Your task to perform on an android device: What's on my calendar tomorrow? Image 0: 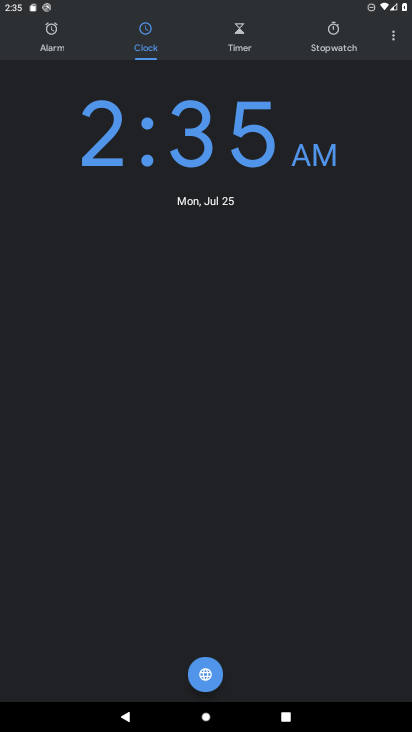
Step 0: press home button
Your task to perform on an android device: What's on my calendar tomorrow? Image 1: 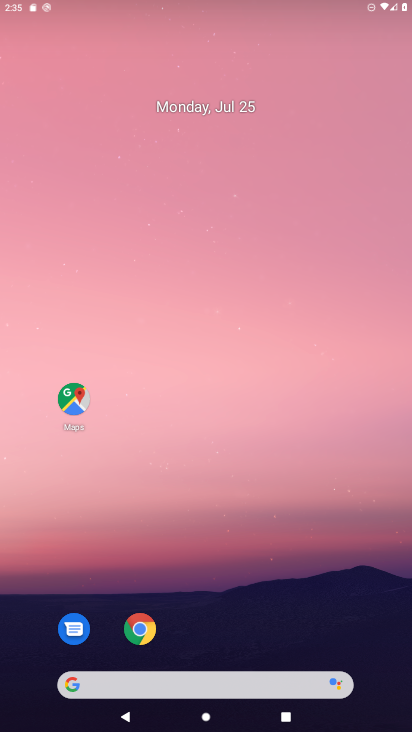
Step 1: drag from (271, 595) to (271, 1)
Your task to perform on an android device: What's on my calendar tomorrow? Image 2: 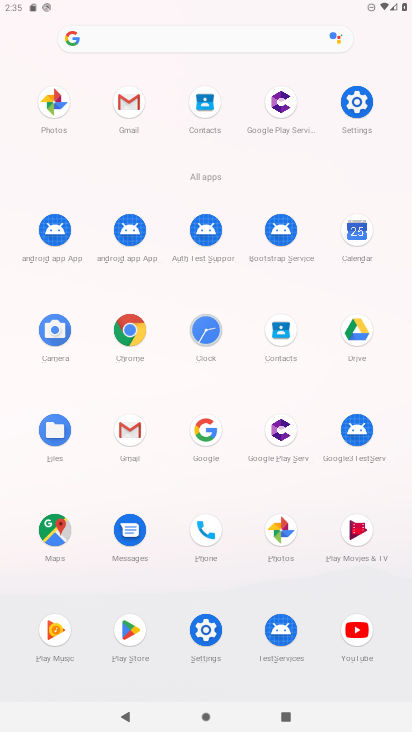
Step 2: click (349, 236)
Your task to perform on an android device: What's on my calendar tomorrow? Image 3: 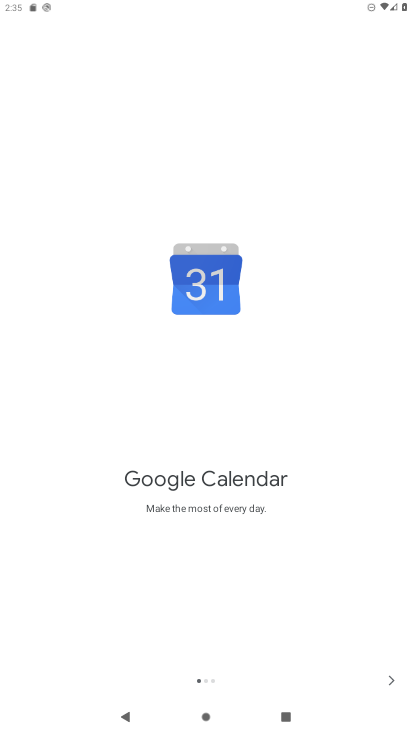
Step 3: click (387, 680)
Your task to perform on an android device: What's on my calendar tomorrow? Image 4: 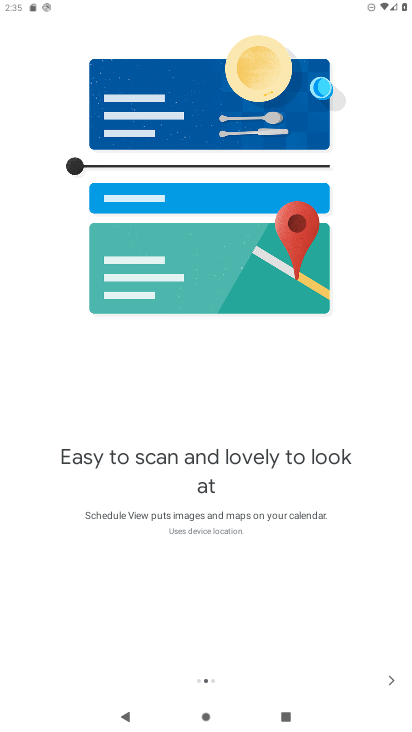
Step 4: click (387, 680)
Your task to perform on an android device: What's on my calendar tomorrow? Image 5: 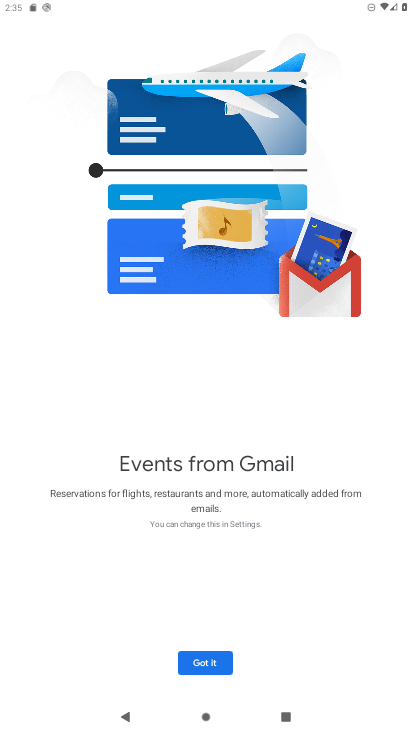
Step 5: click (203, 657)
Your task to perform on an android device: What's on my calendar tomorrow? Image 6: 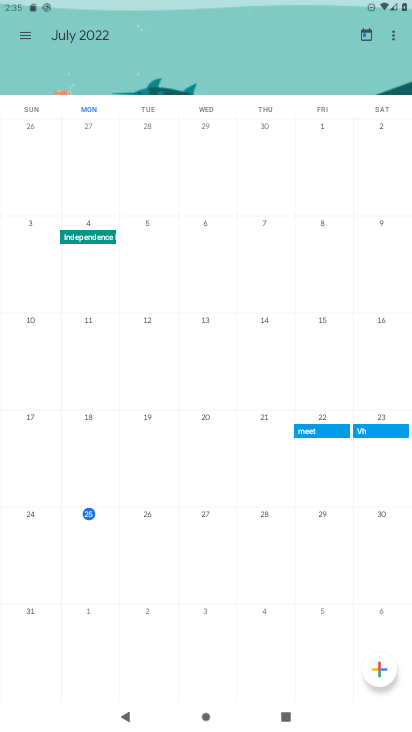
Step 6: click (150, 509)
Your task to perform on an android device: What's on my calendar tomorrow? Image 7: 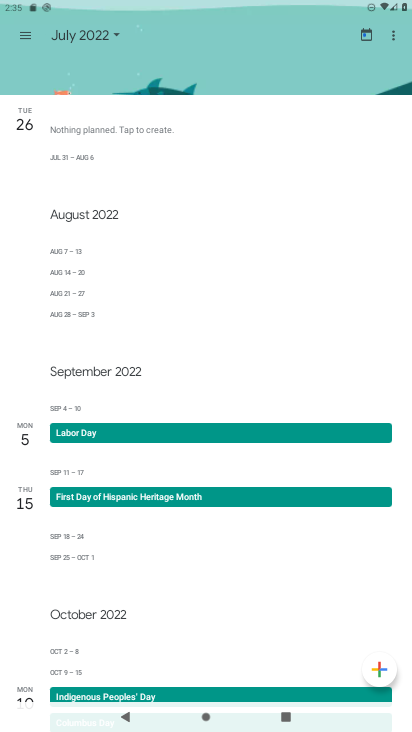
Step 7: task complete